Your task to perform on an android device: Open sound settings Image 0: 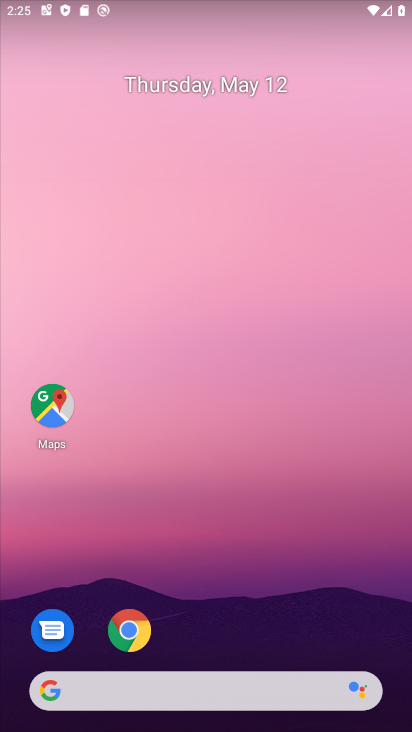
Step 0: drag from (255, 598) to (187, 145)
Your task to perform on an android device: Open sound settings Image 1: 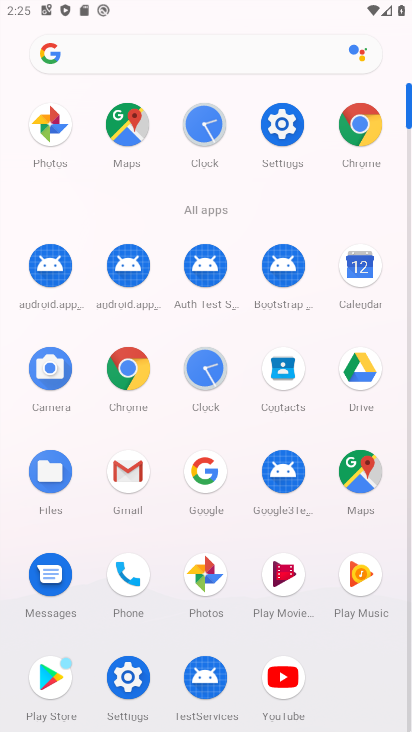
Step 1: click (280, 124)
Your task to perform on an android device: Open sound settings Image 2: 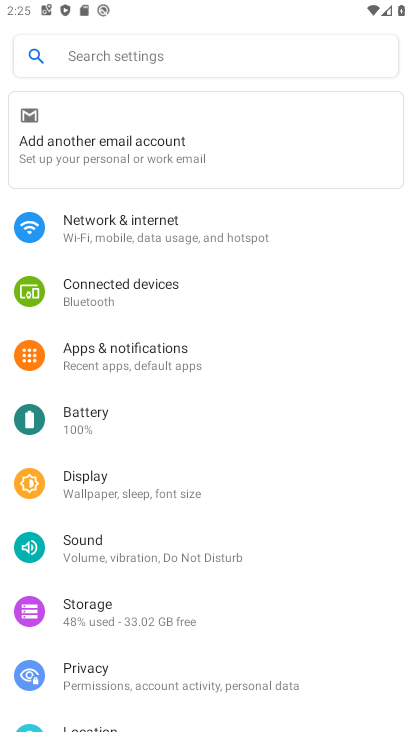
Step 2: click (84, 553)
Your task to perform on an android device: Open sound settings Image 3: 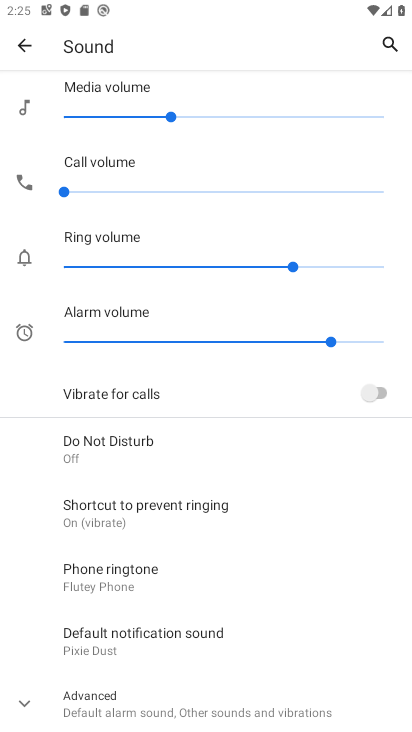
Step 3: task complete